Your task to perform on an android device: Open notification settings Image 0: 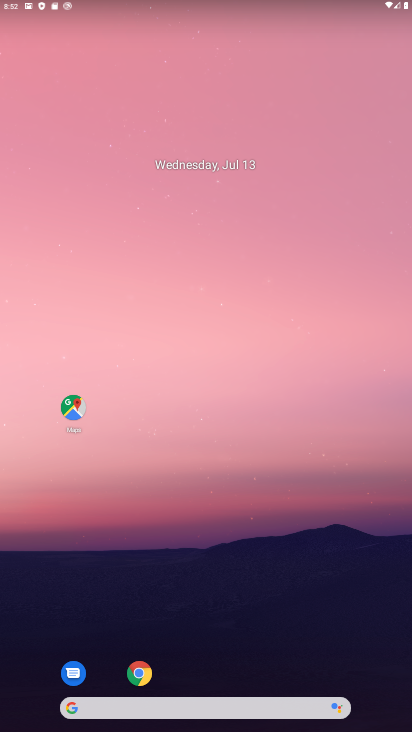
Step 0: drag from (191, 539) to (295, 171)
Your task to perform on an android device: Open notification settings Image 1: 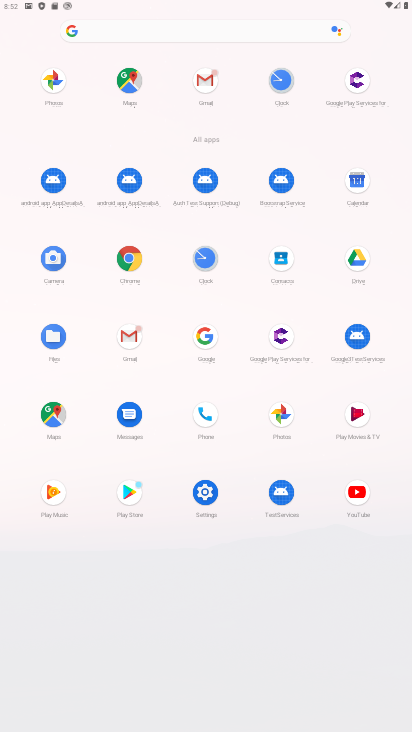
Step 1: drag from (235, 560) to (205, 272)
Your task to perform on an android device: Open notification settings Image 2: 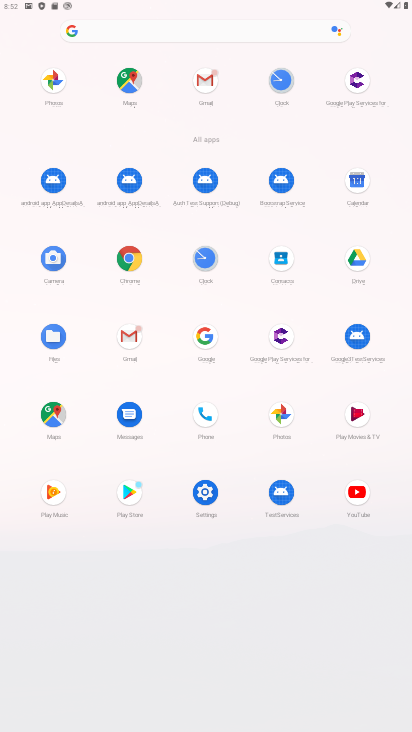
Step 2: click (195, 498)
Your task to perform on an android device: Open notification settings Image 3: 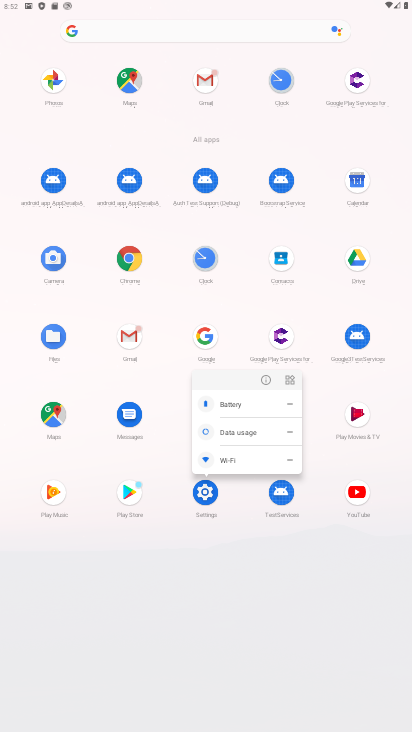
Step 3: click (262, 380)
Your task to perform on an android device: Open notification settings Image 4: 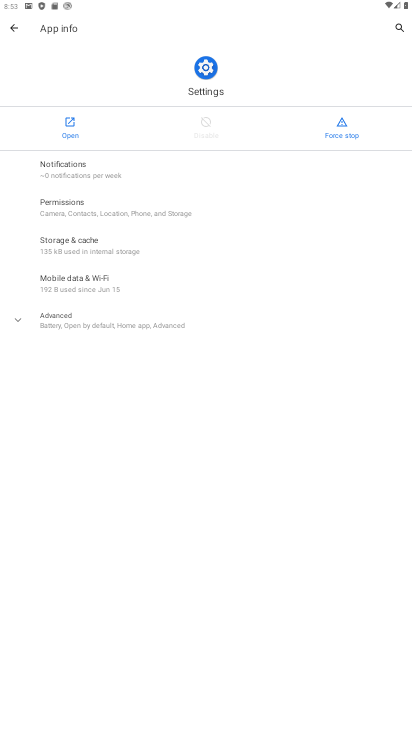
Step 4: click (47, 138)
Your task to perform on an android device: Open notification settings Image 5: 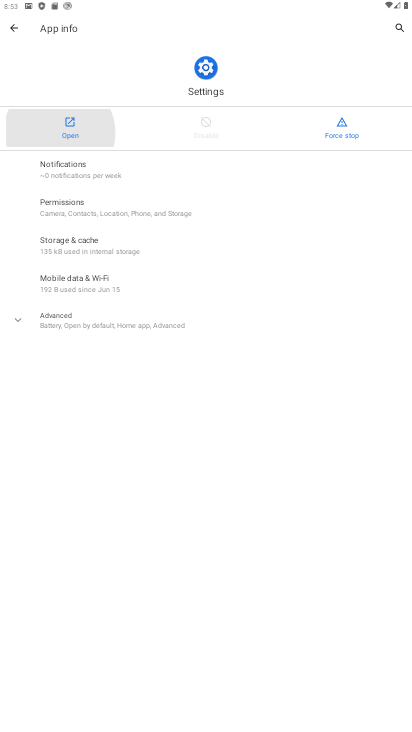
Step 5: click (76, 119)
Your task to perform on an android device: Open notification settings Image 6: 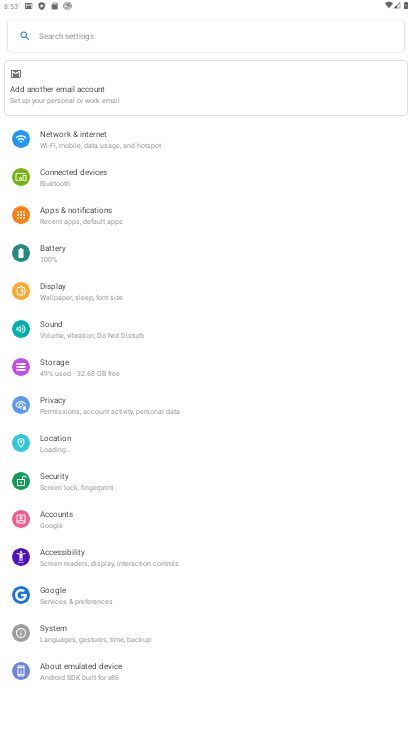
Step 6: click (83, 221)
Your task to perform on an android device: Open notification settings Image 7: 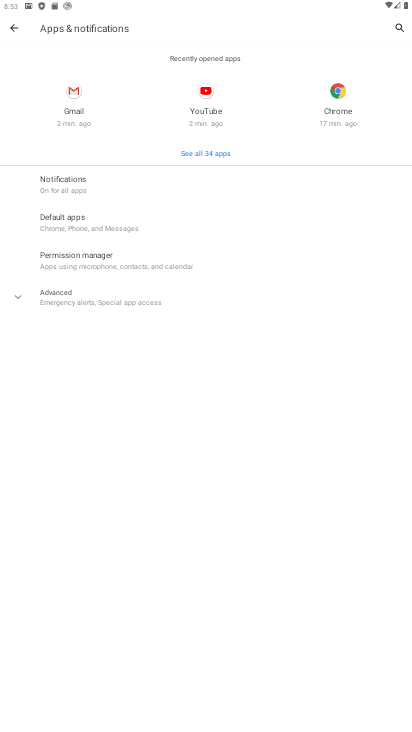
Step 7: click (70, 185)
Your task to perform on an android device: Open notification settings Image 8: 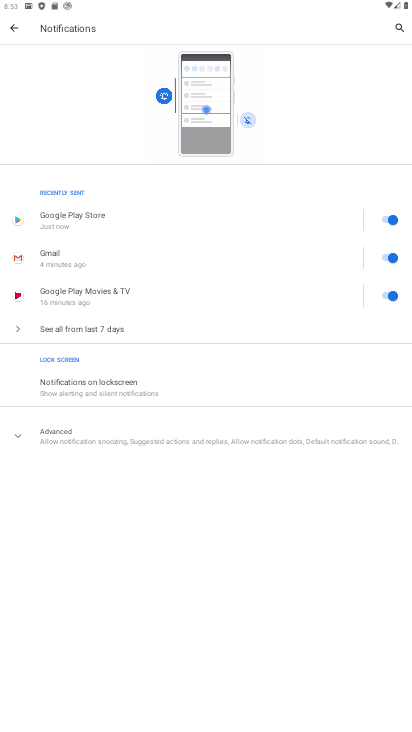
Step 8: click (67, 441)
Your task to perform on an android device: Open notification settings Image 9: 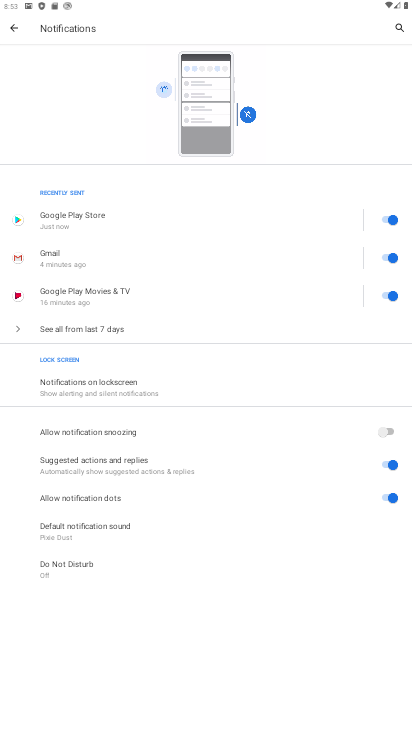
Step 9: task complete